Your task to perform on an android device: Open Yahoo.com Image 0: 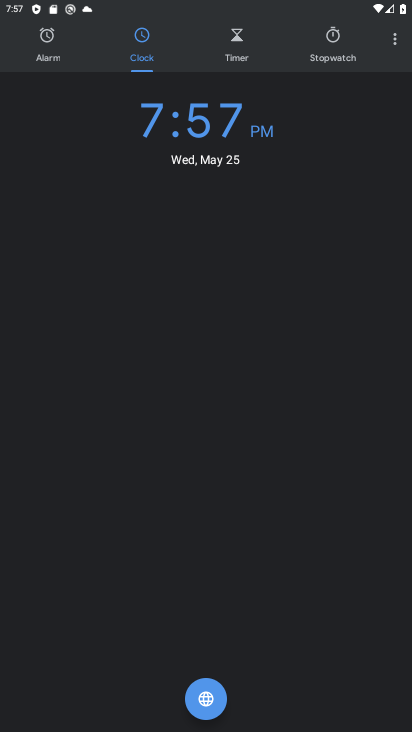
Step 0: press home button
Your task to perform on an android device: Open Yahoo.com Image 1: 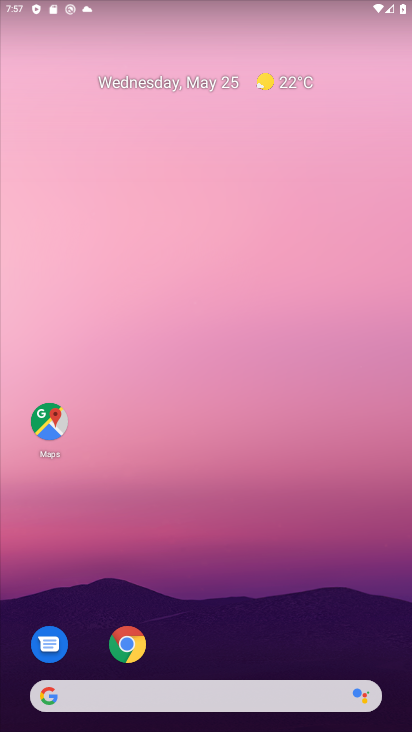
Step 1: click (133, 643)
Your task to perform on an android device: Open Yahoo.com Image 2: 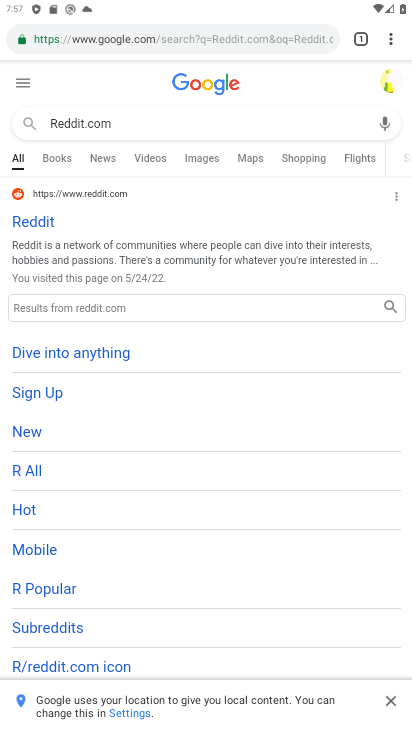
Step 2: click (228, 42)
Your task to perform on an android device: Open Yahoo.com Image 3: 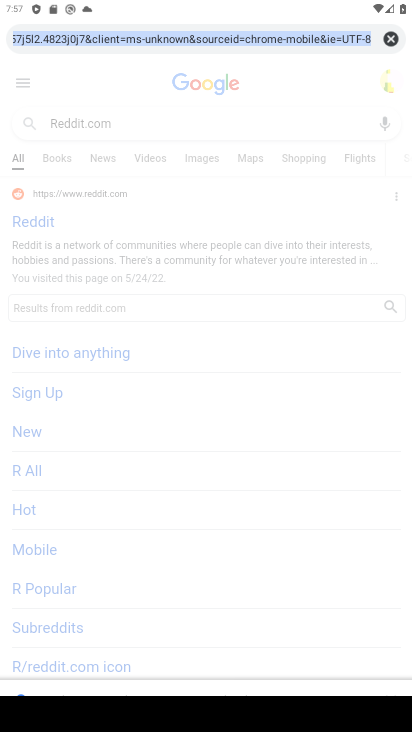
Step 3: type "yahoo.com"
Your task to perform on an android device: Open Yahoo.com Image 4: 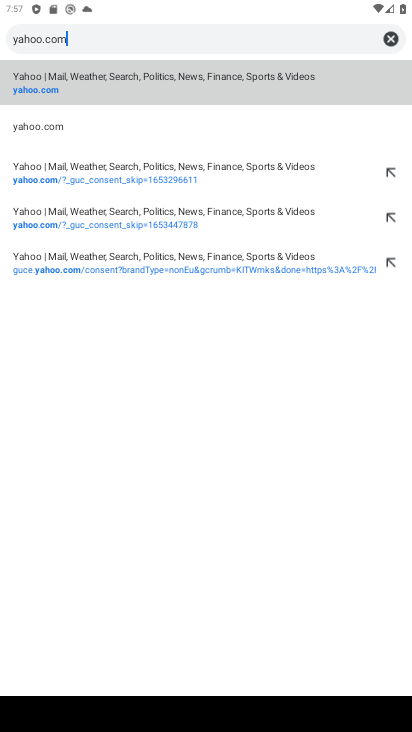
Step 4: click (105, 90)
Your task to perform on an android device: Open Yahoo.com Image 5: 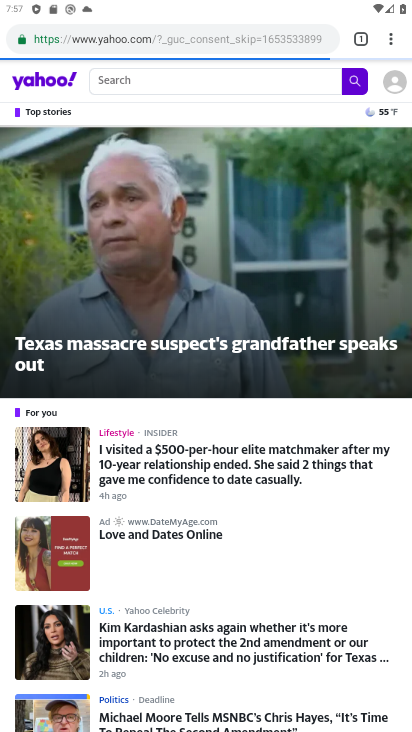
Step 5: task complete